Your task to perform on an android device: check storage Image 0: 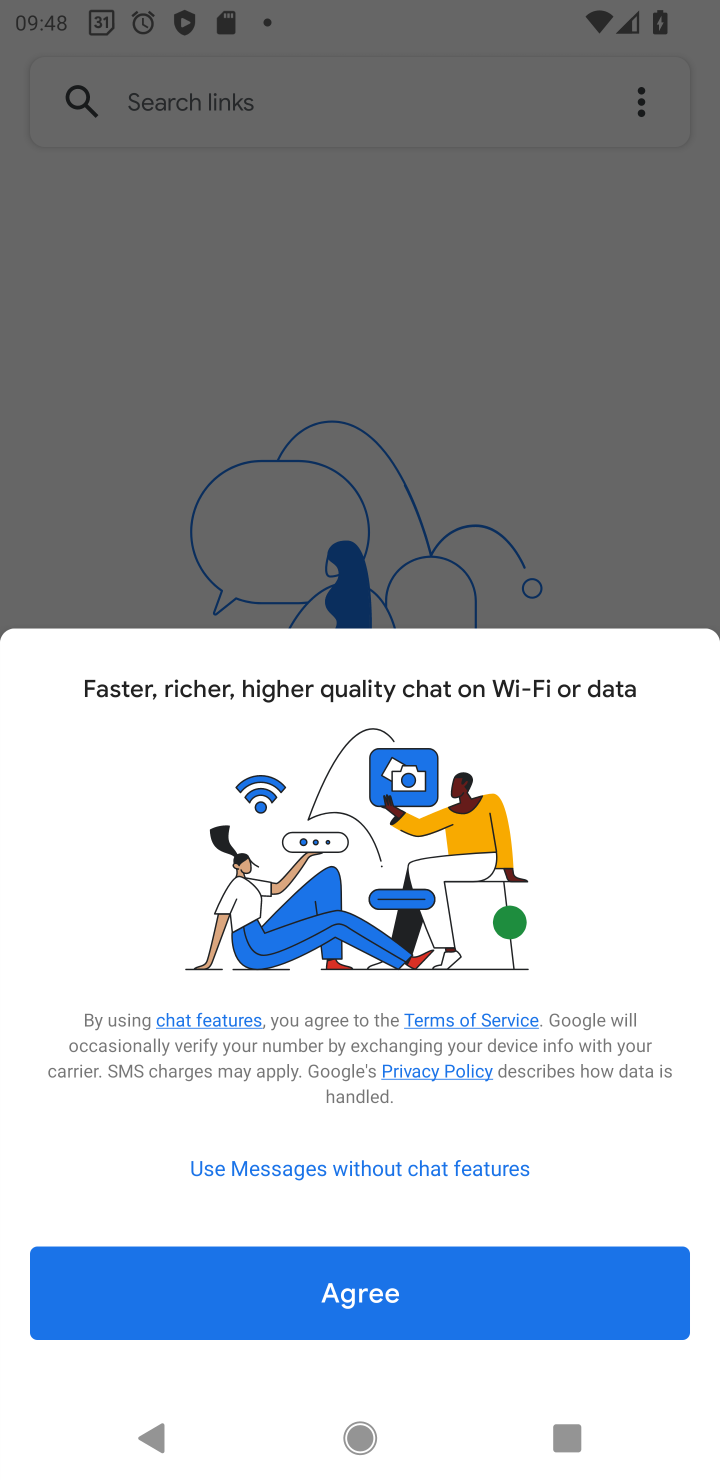
Step 0: press home button
Your task to perform on an android device: check storage Image 1: 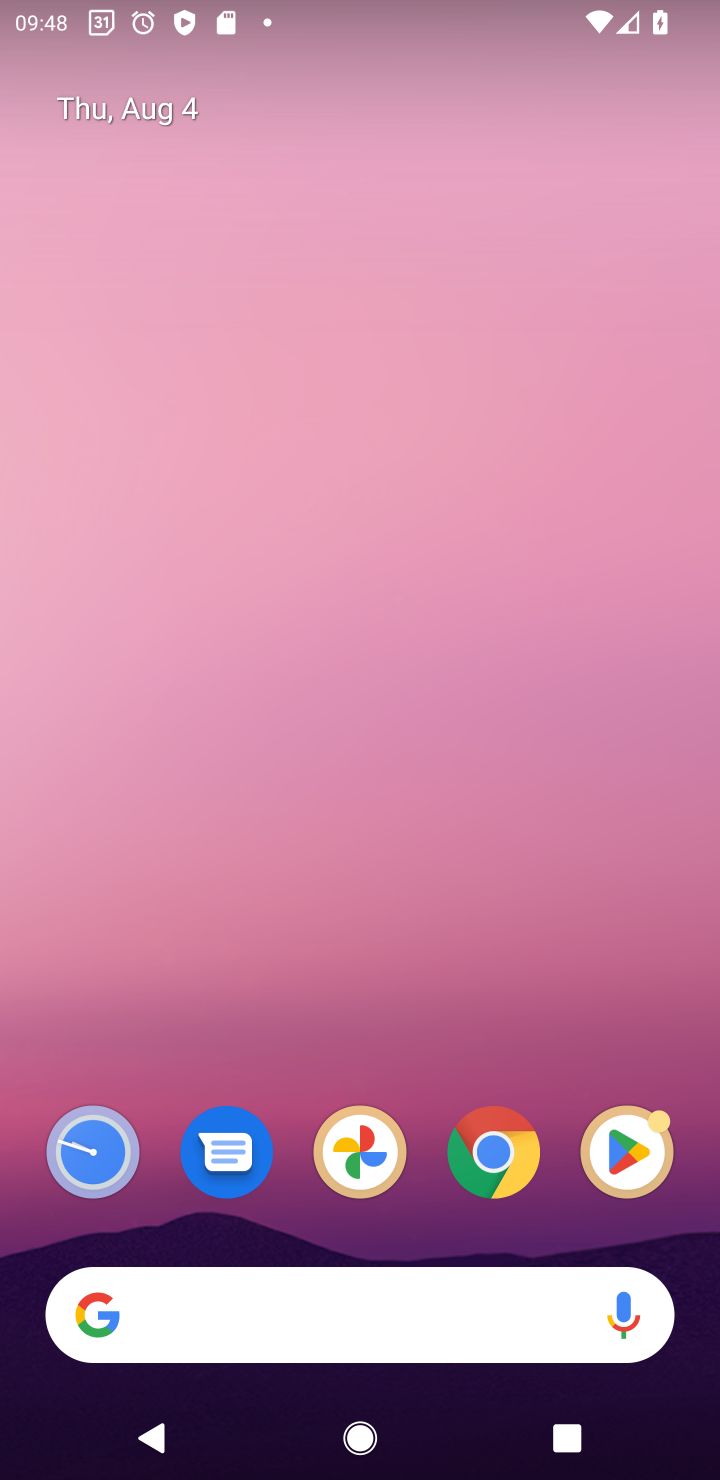
Step 1: drag from (66, 836) to (255, 128)
Your task to perform on an android device: check storage Image 2: 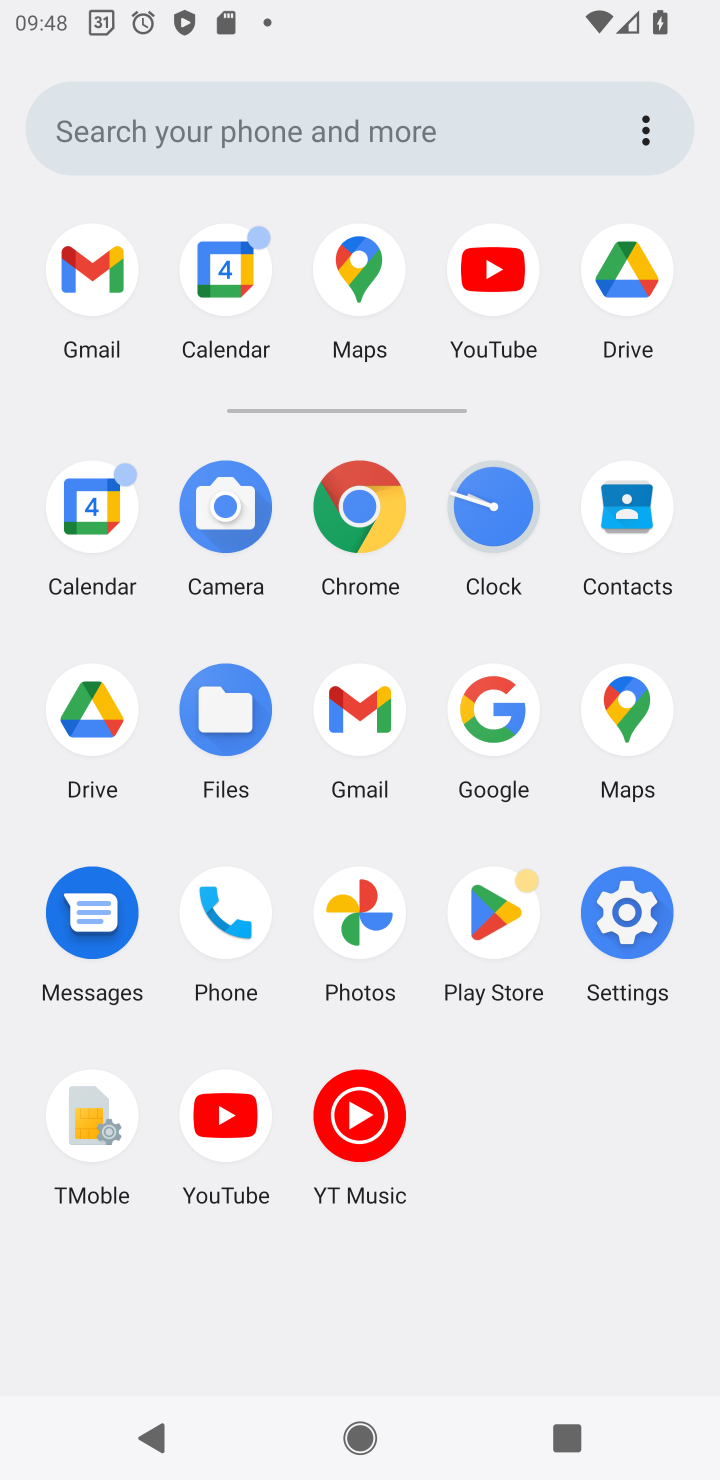
Step 2: click (618, 915)
Your task to perform on an android device: check storage Image 3: 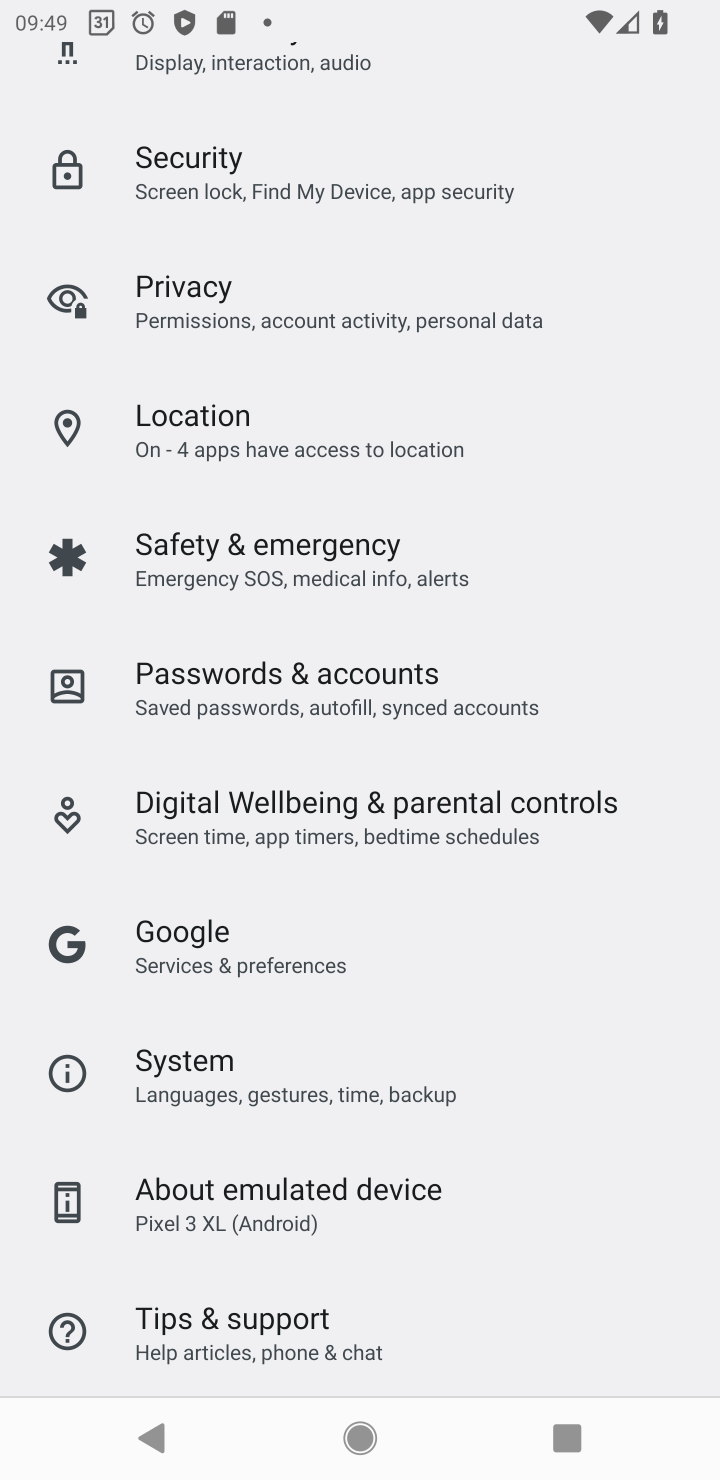
Step 3: drag from (110, 955) to (302, 286)
Your task to perform on an android device: check storage Image 4: 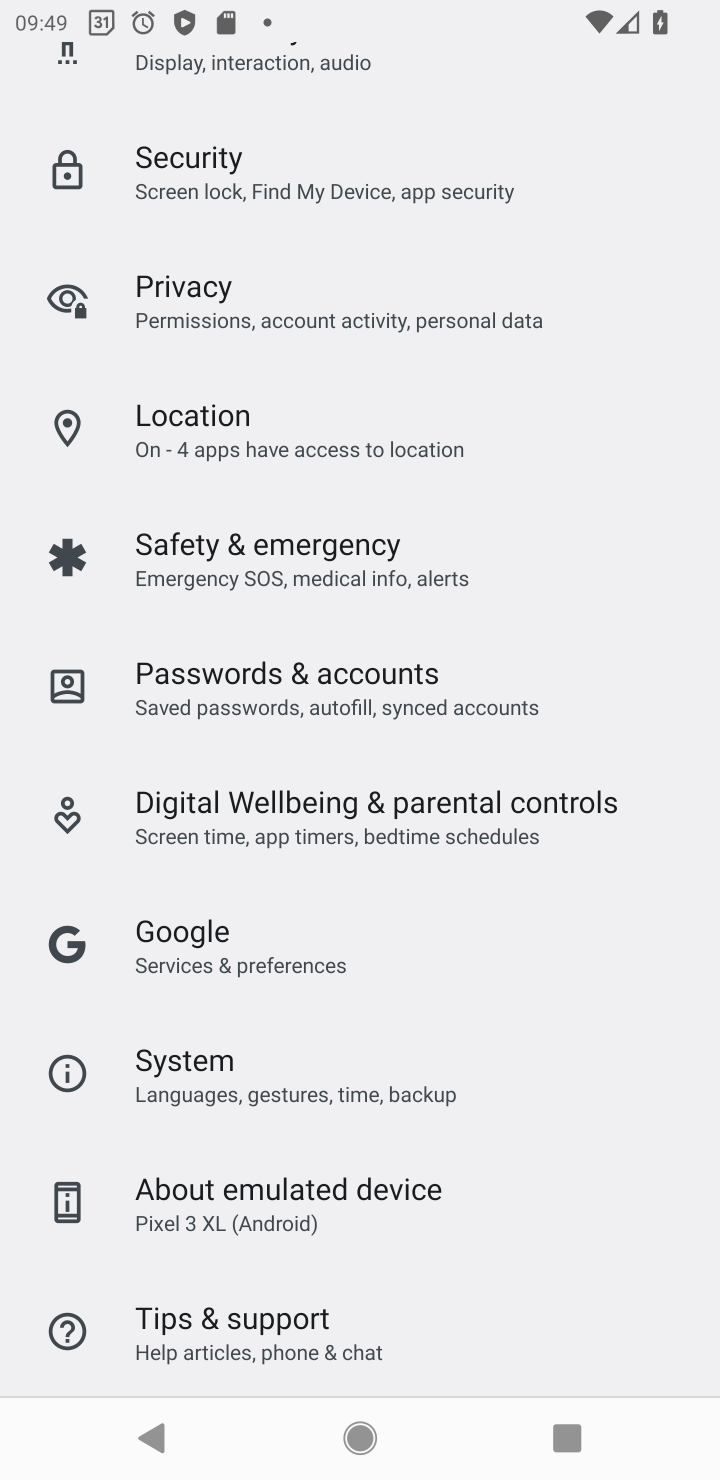
Step 4: drag from (313, 229) to (89, 1473)
Your task to perform on an android device: check storage Image 5: 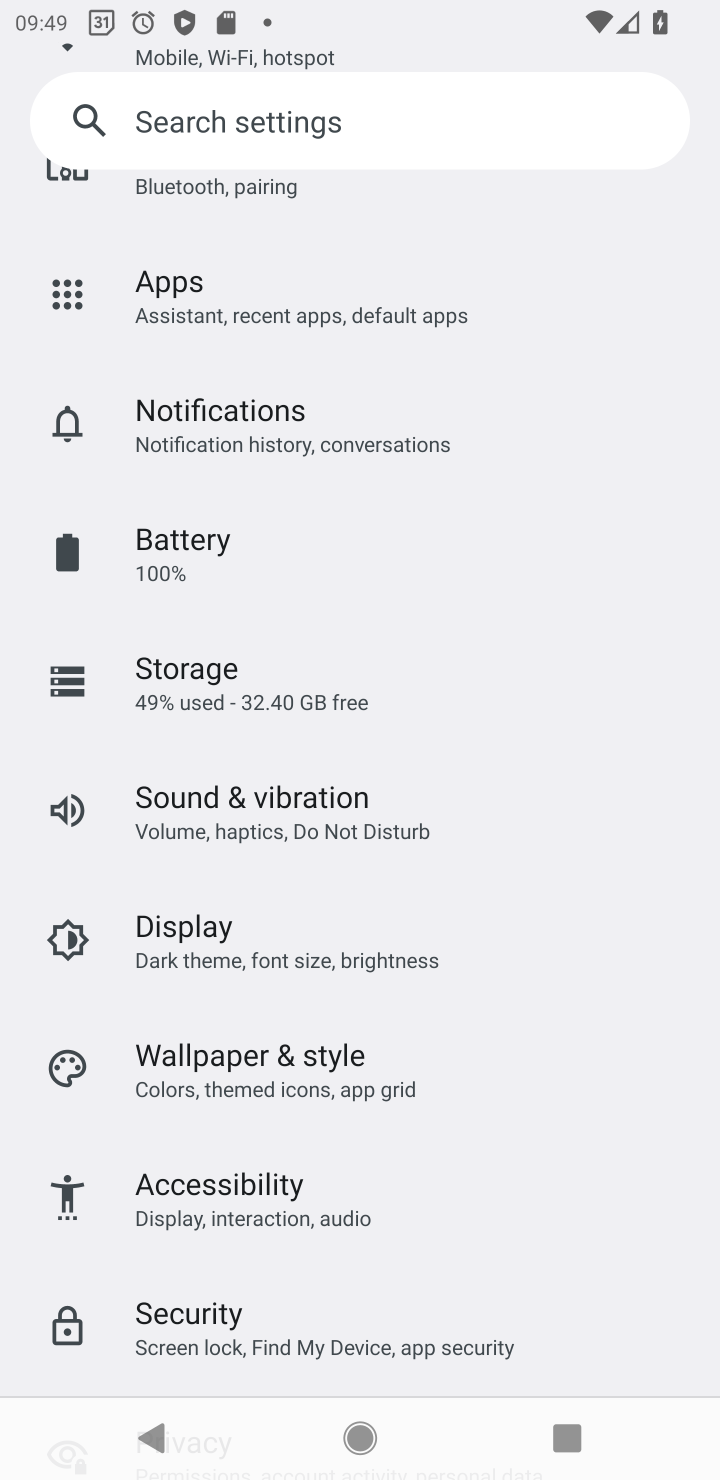
Step 5: click (161, 692)
Your task to perform on an android device: check storage Image 6: 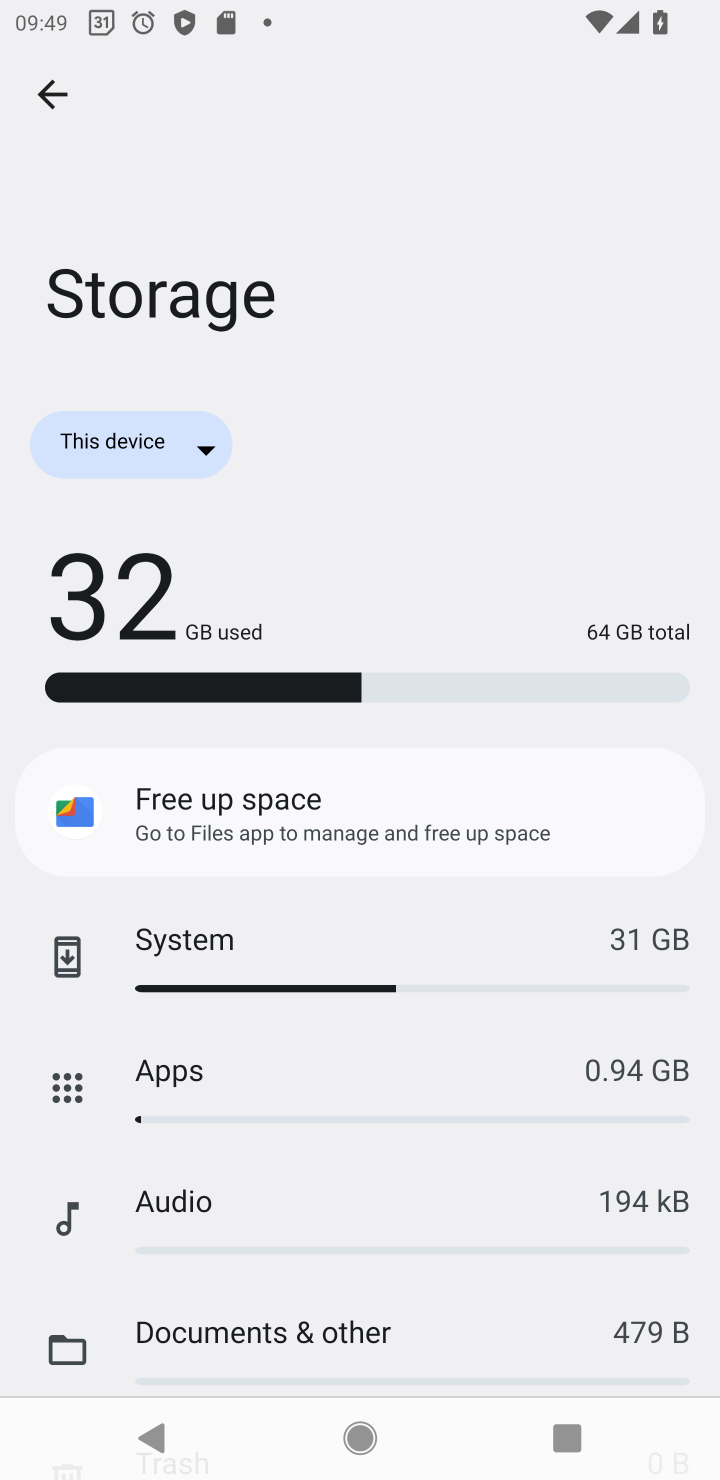
Step 6: task complete